Your task to perform on an android device: Open Google Chrome Image 0: 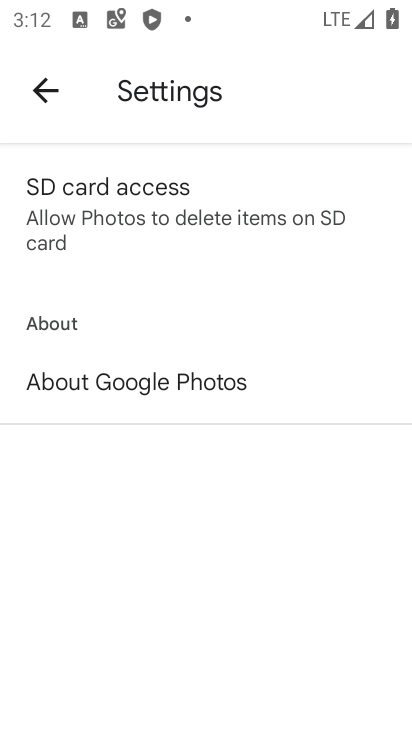
Step 0: press home button
Your task to perform on an android device: Open Google Chrome Image 1: 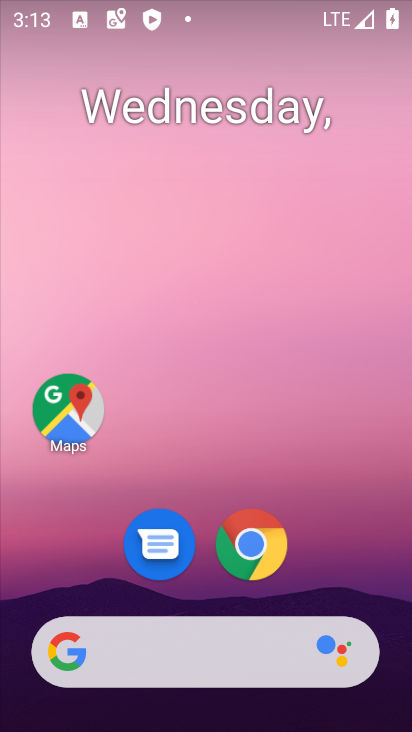
Step 1: click (252, 543)
Your task to perform on an android device: Open Google Chrome Image 2: 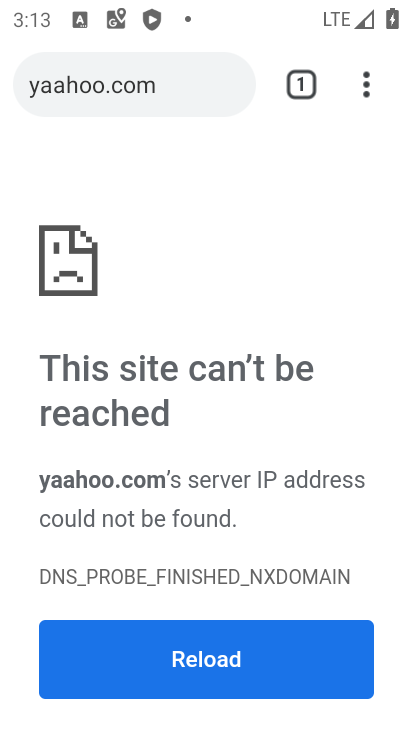
Step 2: click (194, 650)
Your task to perform on an android device: Open Google Chrome Image 3: 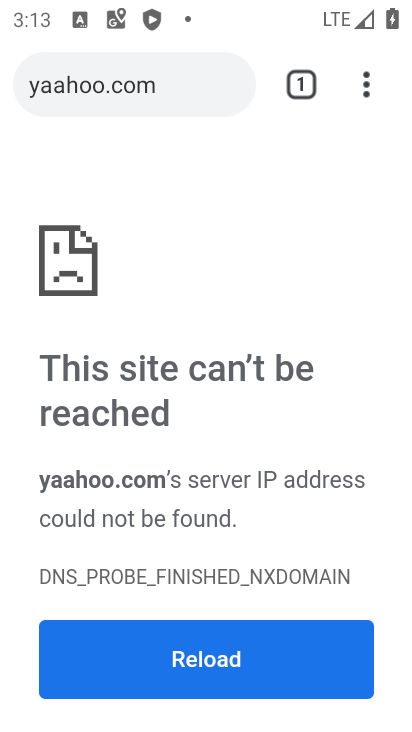
Step 3: task complete